Your task to perform on an android device: check out phone information Image 0: 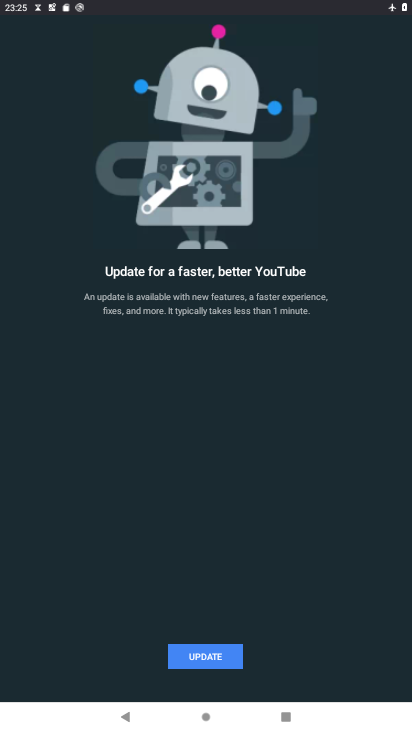
Step 0: press home button
Your task to perform on an android device: check out phone information Image 1: 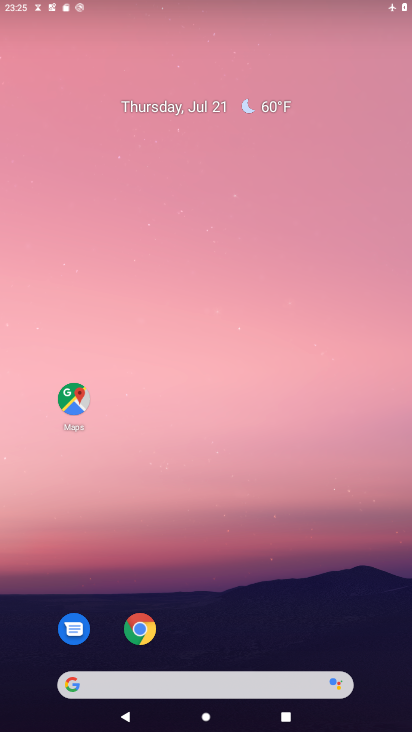
Step 1: drag from (206, 603) to (252, 135)
Your task to perform on an android device: check out phone information Image 2: 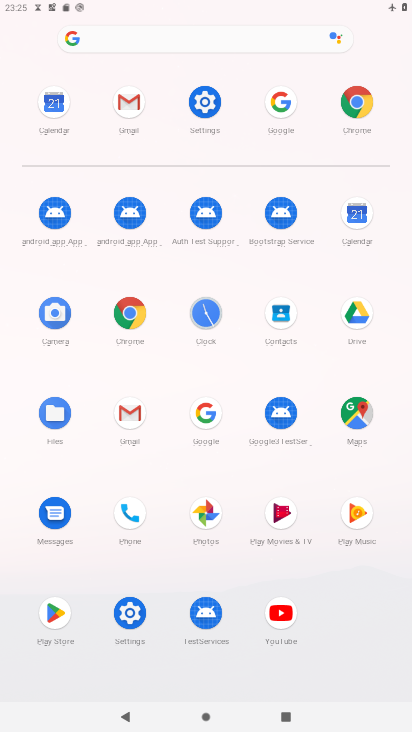
Step 2: click (201, 94)
Your task to perform on an android device: check out phone information Image 3: 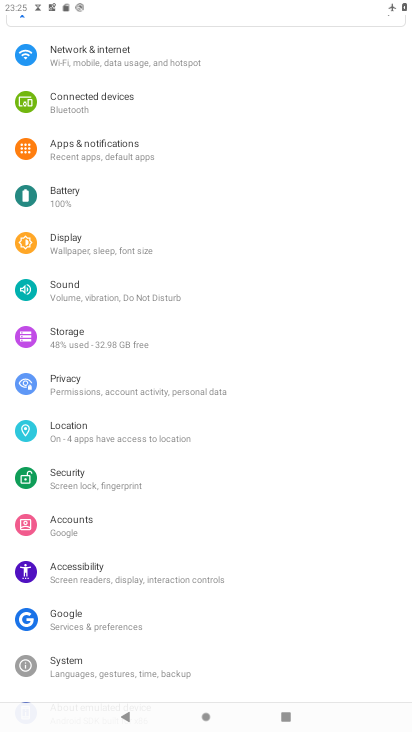
Step 3: drag from (143, 561) to (190, 261)
Your task to perform on an android device: check out phone information Image 4: 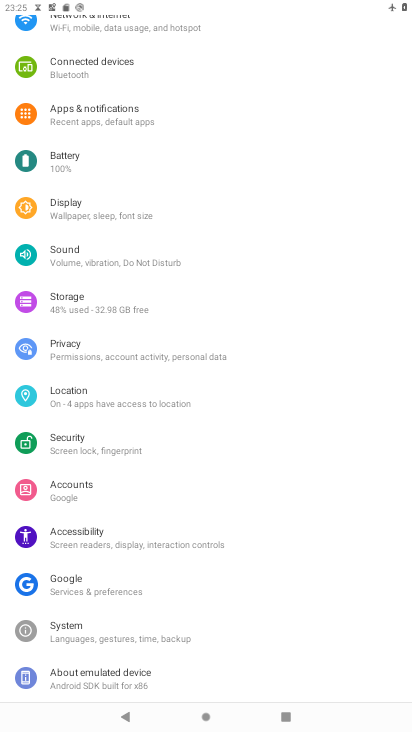
Step 4: click (74, 688)
Your task to perform on an android device: check out phone information Image 5: 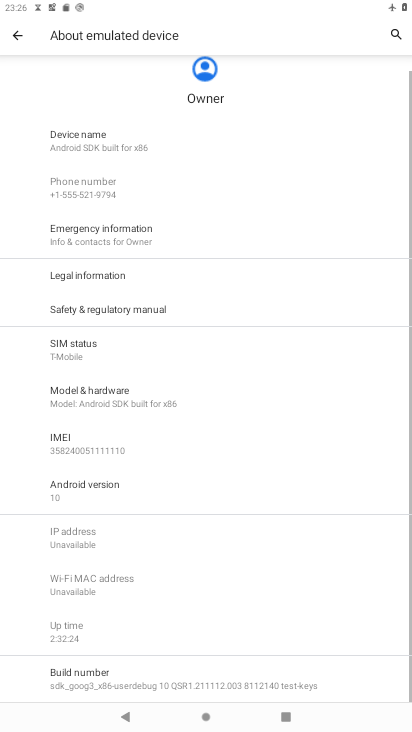
Step 5: task complete